Your task to perform on an android device: Find coffee shops on Maps Image 0: 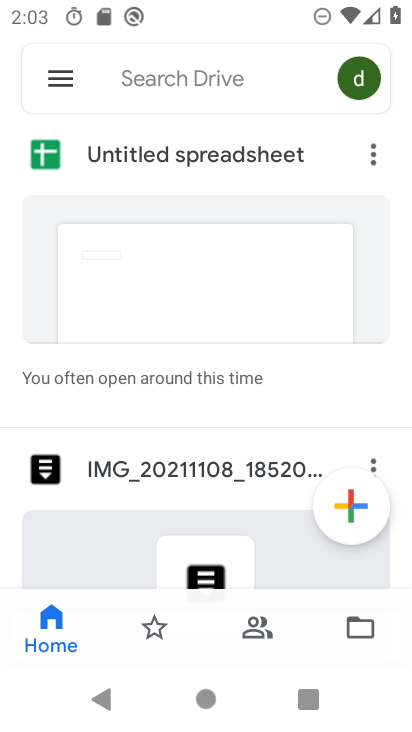
Step 0: press home button
Your task to perform on an android device: Find coffee shops on Maps Image 1: 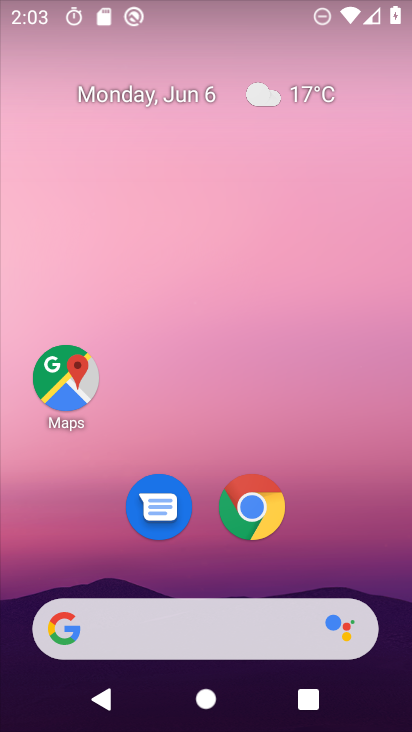
Step 1: drag from (263, 680) to (229, 228)
Your task to perform on an android device: Find coffee shops on Maps Image 2: 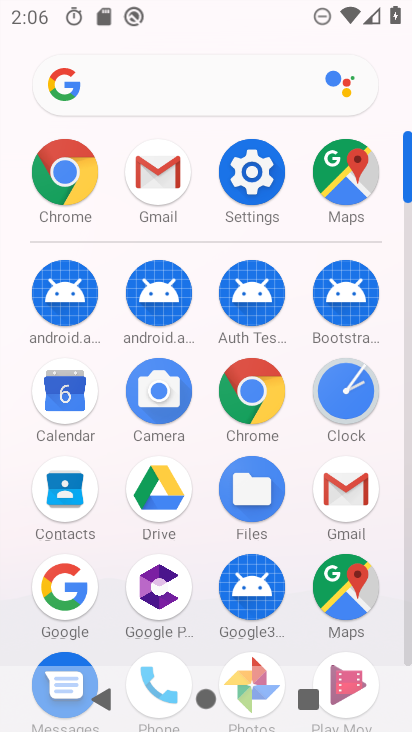
Step 2: click (340, 573)
Your task to perform on an android device: Find coffee shops on Maps Image 3: 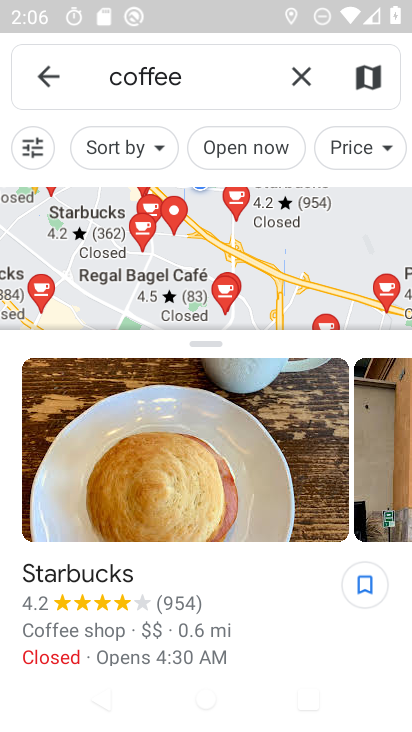
Step 3: task complete